Your task to perform on an android device: Search for pizza restaurants on Maps Image 0: 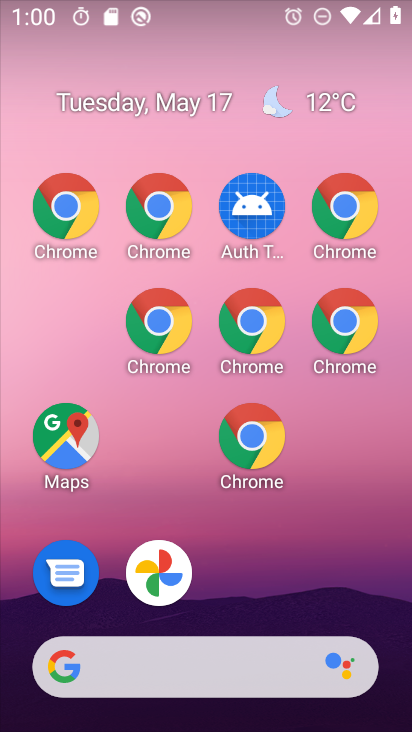
Step 0: drag from (339, 660) to (255, 154)
Your task to perform on an android device: Search for pizza restaurants on Maps Image 1: 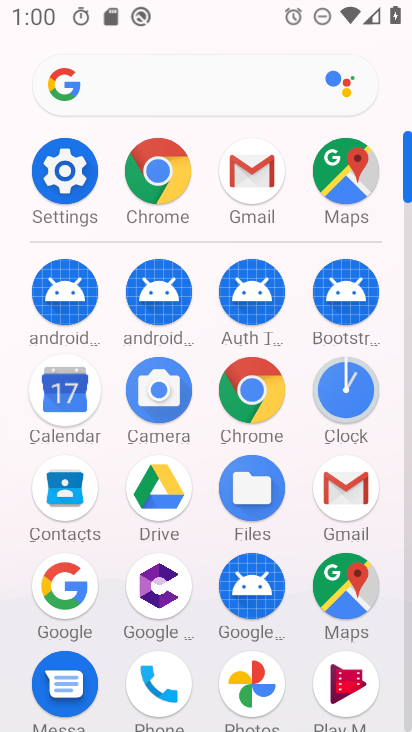
Step 1: click (357, 573)
Your task to perform on an android device: Search for pizza restaurants on Maps Image 2: 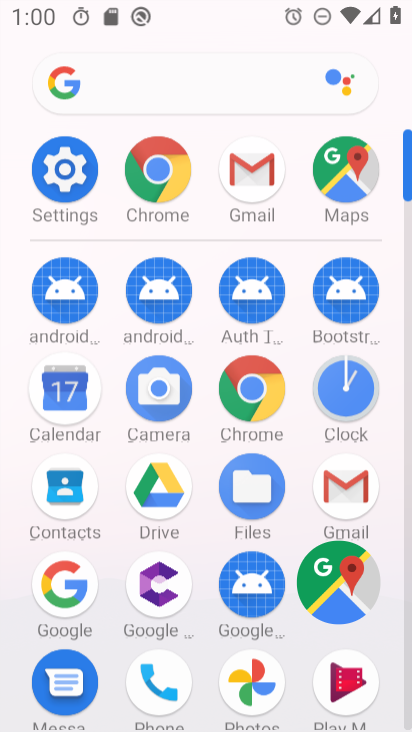
Step 2: click (357, 573)
Your task to perform on an android device: Search for pizza restaurants on Maps Image 3: 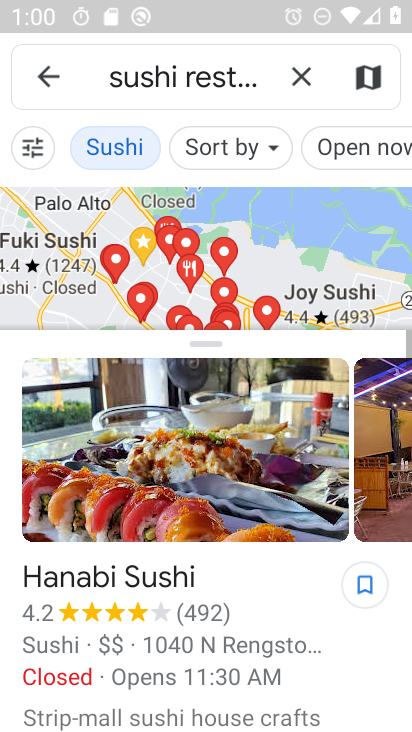
Step 3: click (302, 74)
Your task to perform on an android device: Search for pizza restaurants on Maps Image 4: 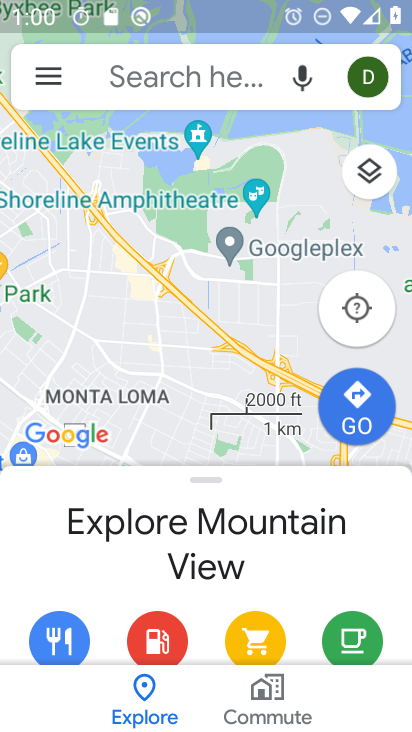
Step 4: click (124, 76)
Your task to perform on an android device: Search for pizza restaurants on Maps Image 5: 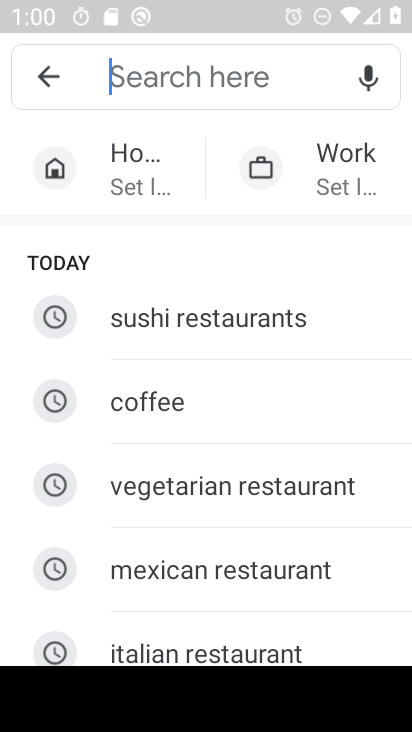
Step 5: type "pizza restaurants"
Your task to perform on an android device: Search for pizza restaurants on Maps Image 6: 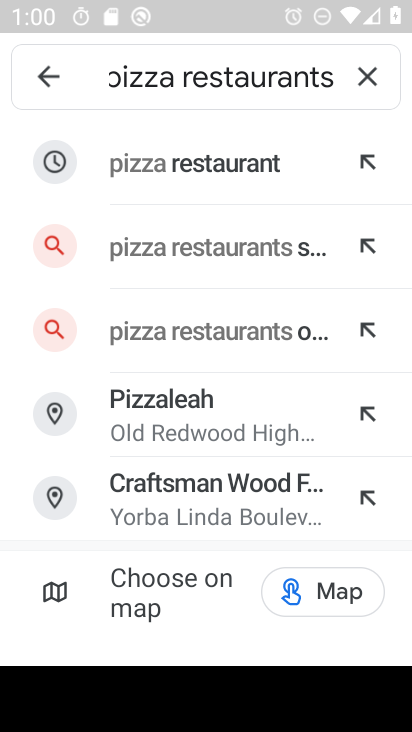
Step 6: click (205, 167)
Your task to perform on an android device: Search for pizza restaurants on Maps Image 7: 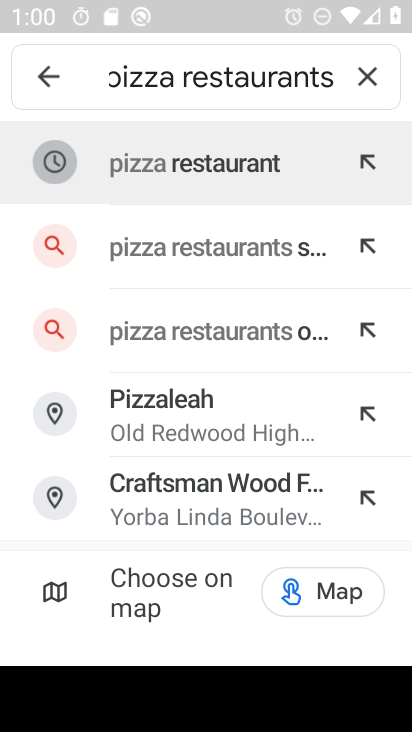
Step 7: click (206, 166)
Your task to perform on an android device: Search for pizza restaurants on Maps Image 8: 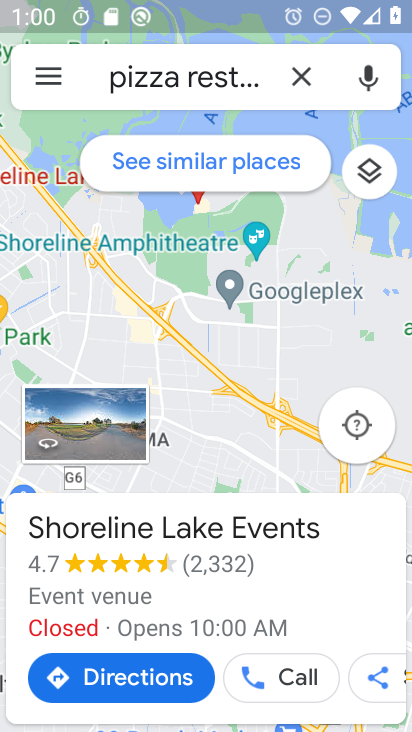
Step 8: task complete